Your task to perform on an android device: Open eBay Image 0: 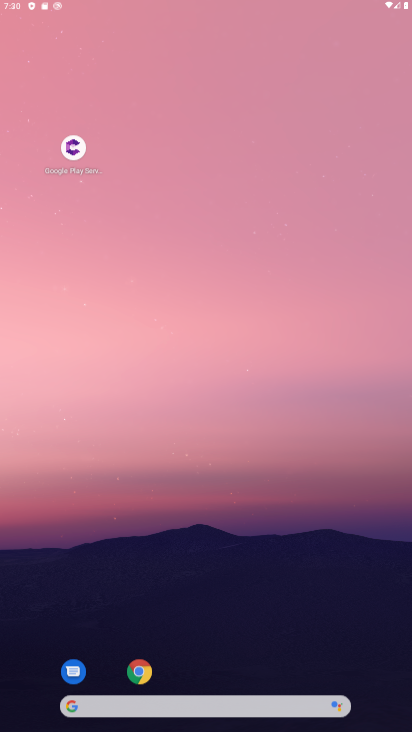
Step 0: click (201, 264)
Your task to perform on an android device: Open eBay Image 1: 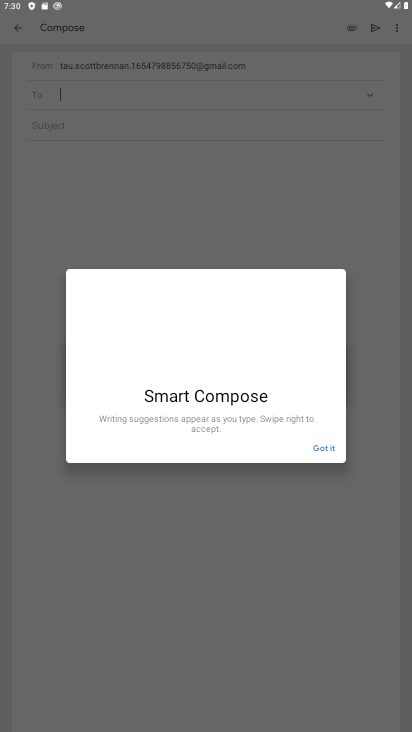
Step 1: press home button
Your task to perform on an android device: Open eBay Image 2: 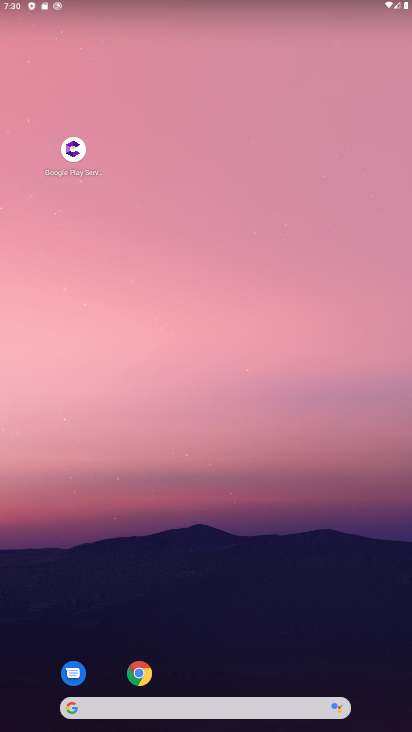
Step 2: click (132, 677)
Your task to perform on an android device: Open eBay Image 3: 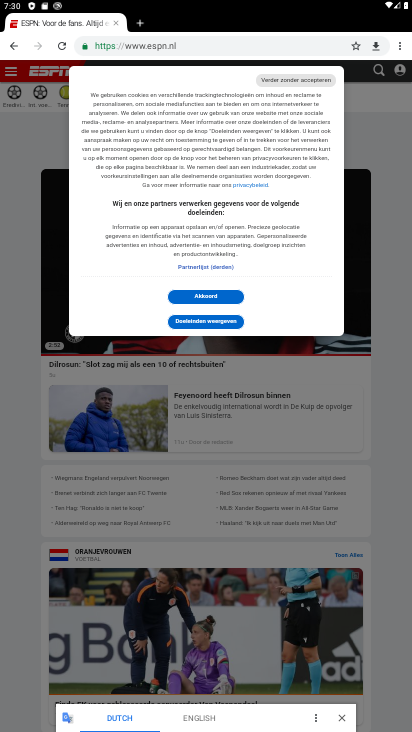
Step 3: click (117, 18)
Your task to perform on an android device: Open eBay Image 4: 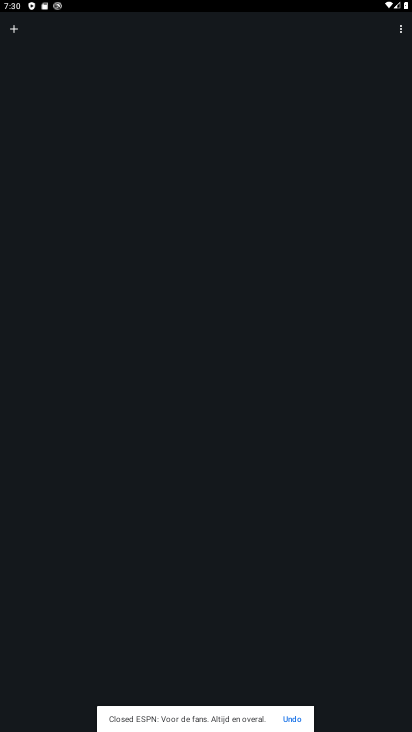
Step 4: click (9, 34)
Your task to perform on an android device: Open eBay Image 5: 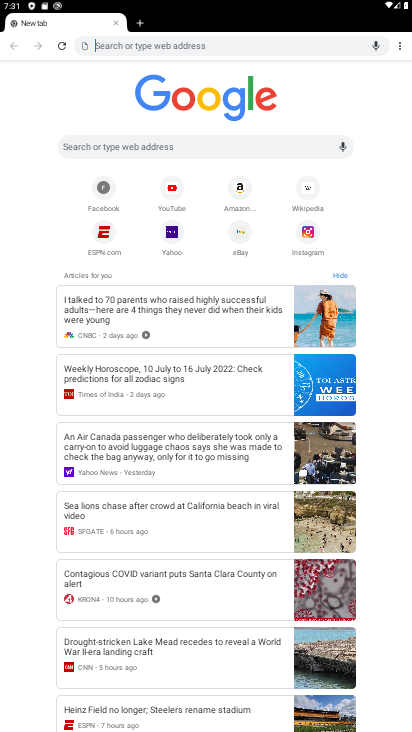
Step 5: click (249, 235)
Your task to perform on an android device: Open eBay Image 6: 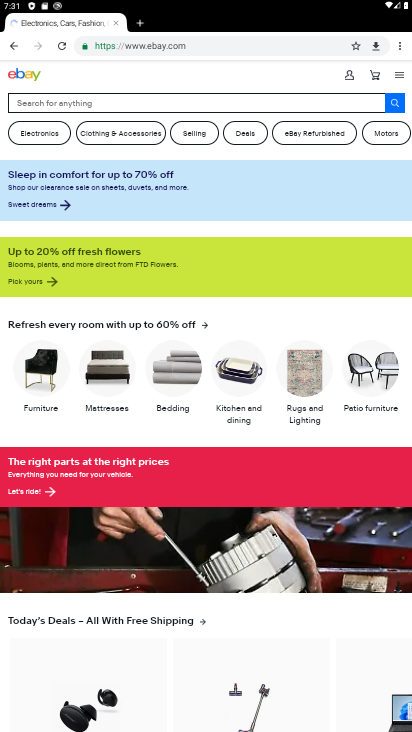
Step 6: task complete